Your task to perform on an android device: open chrome and create a bookmark for the current page Image 0: 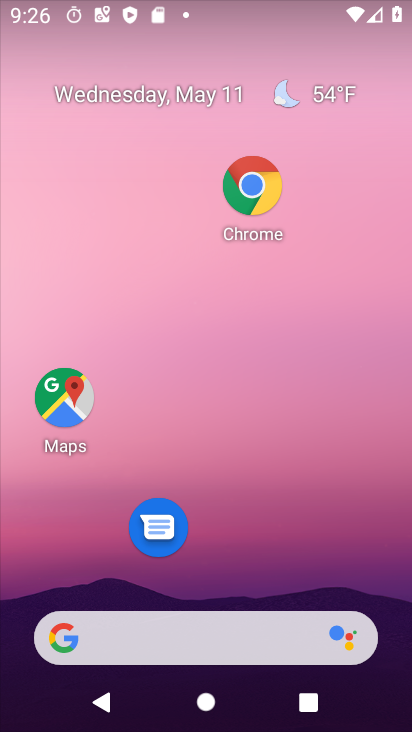
Step 0: click (252, 190)
Your task to perform on an android device: open chrome and create a bookmark for the current page Image 1: 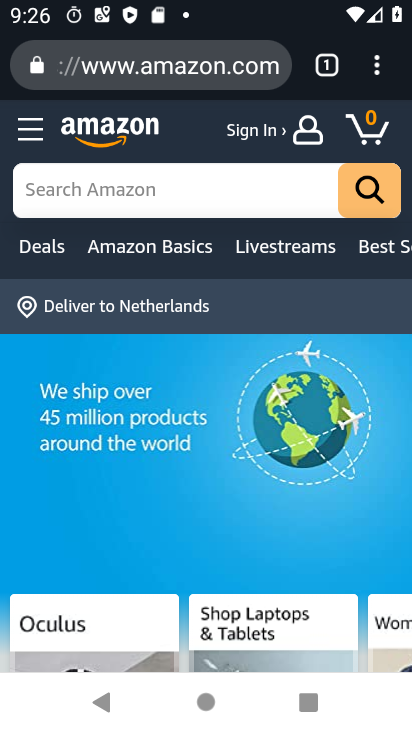
Step 1: click (369, 70)
Your task to perform on an android device: open chrome and create a bookmark for the current page Image 2: 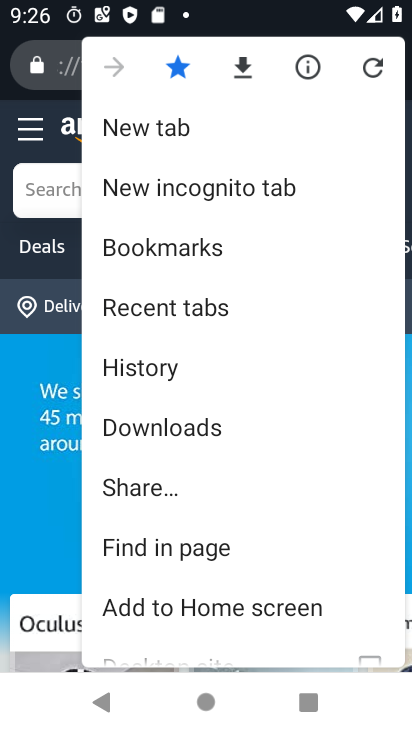
Step 2: task complete